Your task to perform on an android device: Set the phone to "Do not disturb". Image 0: 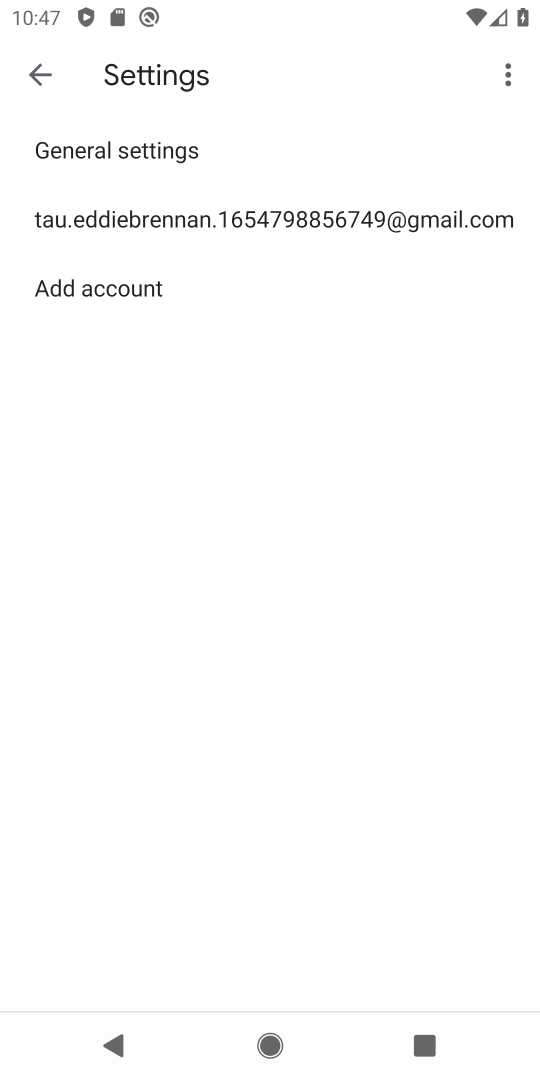
Step 0: press home button
Your task to perform on an android device: Set the phone to "Do not disturb". Image 1: 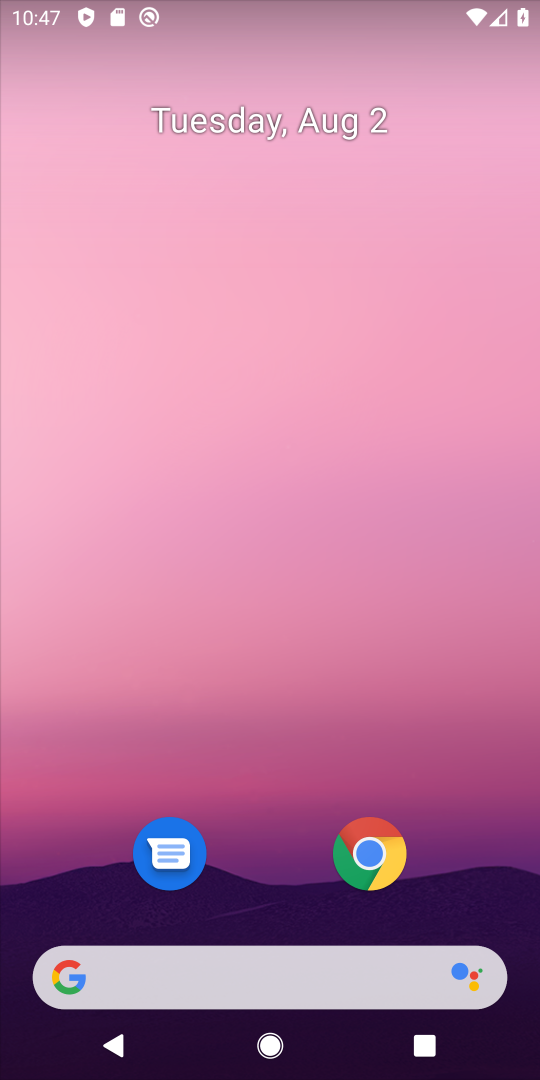
Step 1: drag from (372, 6) to (320, 598)
Your task to perform on an android device: Set the phone to "Do not disturb". Image 2: 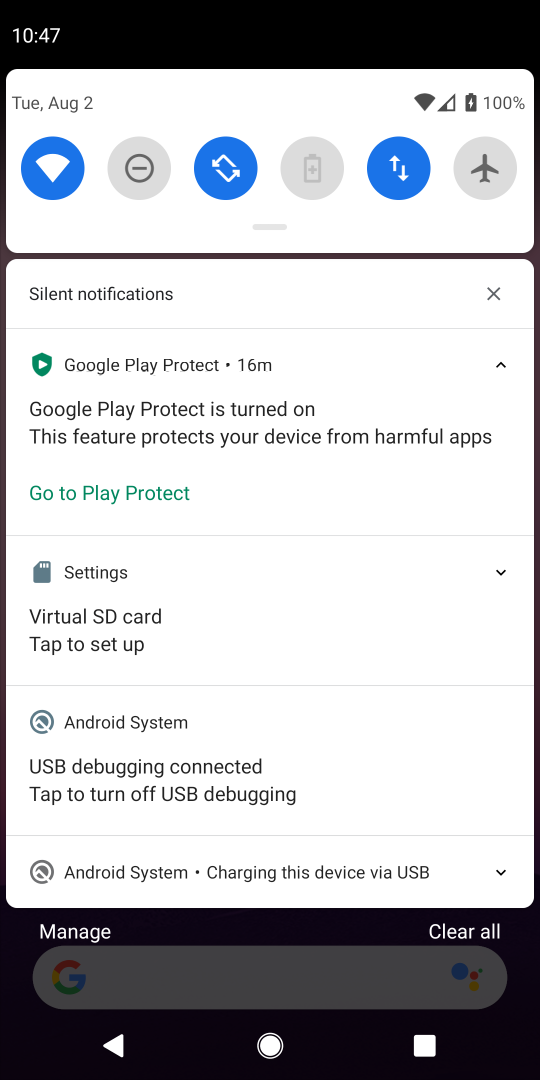
Step 2: click (144, 176)
Your task to perform on an android device: Set the phone to "Do not disturb". Image 3: 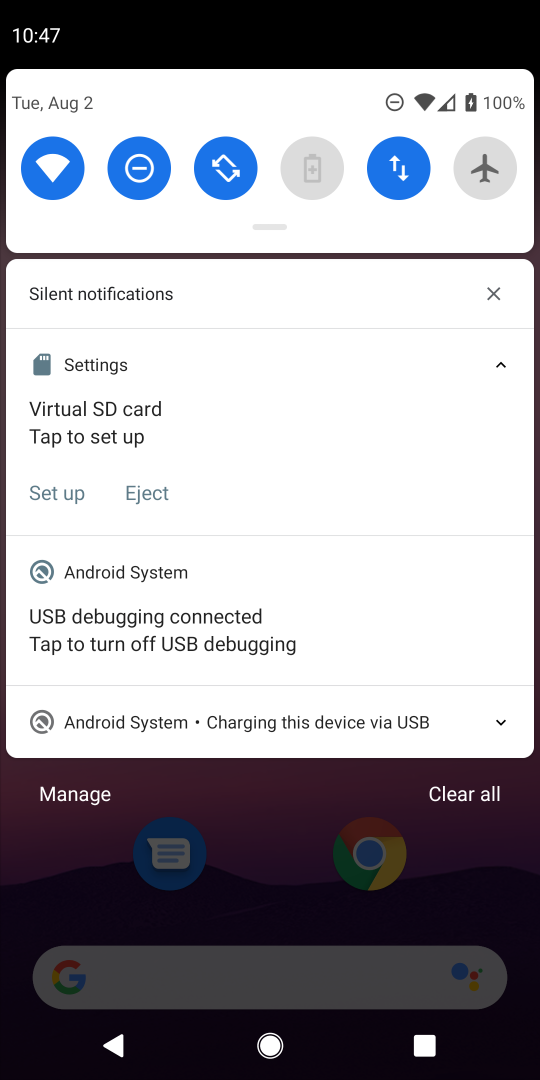
Step 3: task complete